Your task to perform on an android device: What's on the menu at Pizza Hut? Image 0: 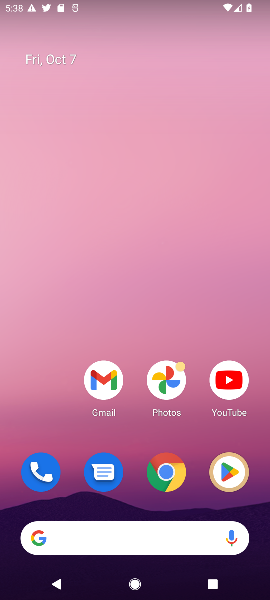
Step 0: click (170, 468)
Your task to perform on an android device: What's on the menu at Pizza Hut? Image 1: 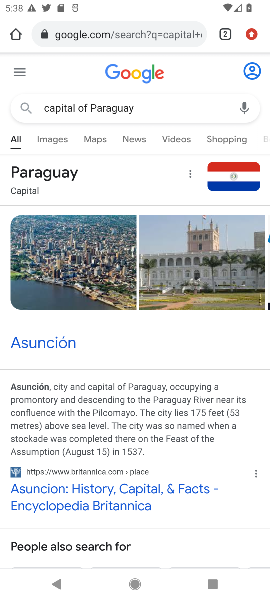
Step 1: click (133, 39)
Your task to perform on an android device: What's on the menu at Pizza Hut? Image 2: 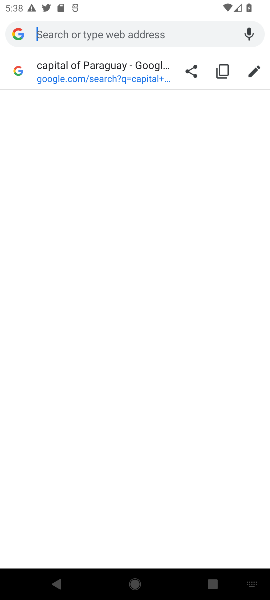
Step 2: type "pizza Hut"
Your task to perform on an android device: What's on the menu at Pizza Hut? Image 3: 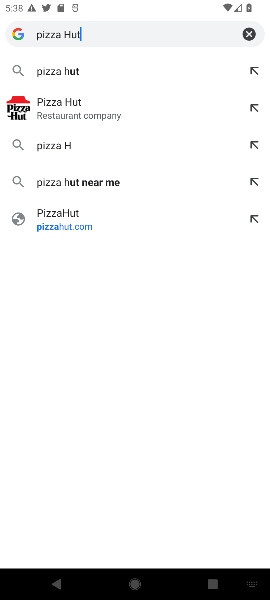
Step 3: type ""
Your task to perform on an android device: What's on the menu at Pizza Hut? Image 4: 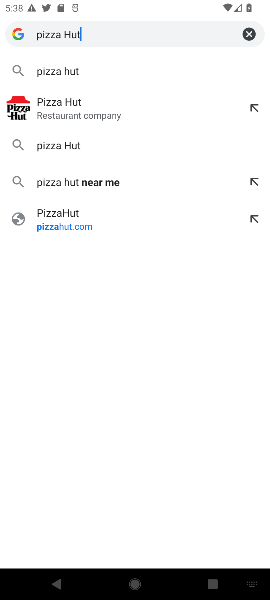
Step 4: click (83, 70)
Your task to perform on an android device: What's on the menu at Pizza Hut? Image 5: 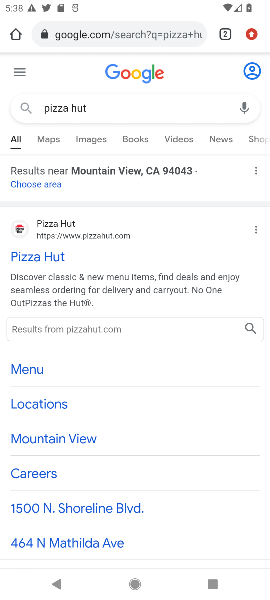
Step 5: click (37, 255)
Your task to perform on an android device: What's on the menu at Pizza Hut? Image 6: 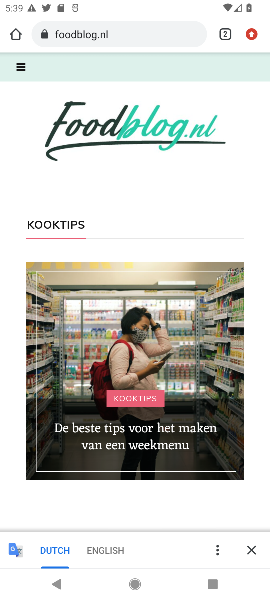
Step 6: press back button
Your task to perform on an android device: What's on the menu at Pizza Hut? Image 7: 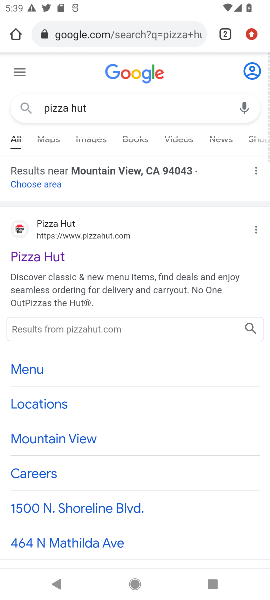
Step 7: click (33, 371)
Your task to perform on an android device: What's on the menu at Pizza Hut? Image 8: 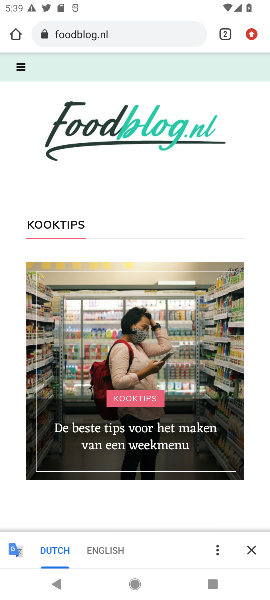
Step 8: drag from (149, 499) to (160, 206)
Your task to perform on an android device: What's on the menu at Pizza Hut? Image 9: 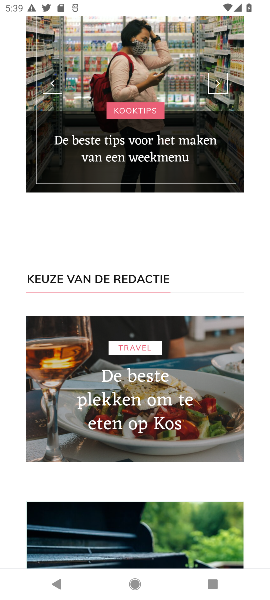
Step 9: press back button
Your task to perform on an android device: What's on the menu at Pizza Hut? Image 10: 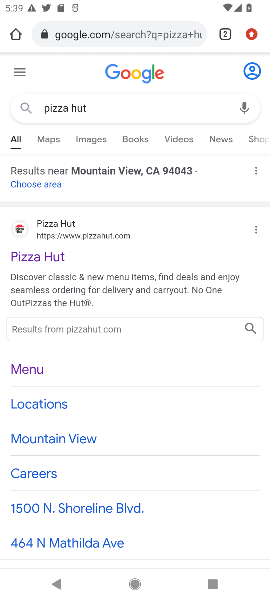
Step 10: drag from (153, 442) to (139, 34)
Your task to perform on an android device: What's on the menu at Pizza Hut? Image 11: 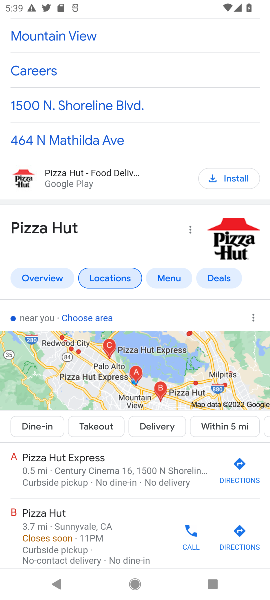
Step 11: drag from (140, 461) to (134, 313)
Your task to perform on an android device: What's on the menu at Pizza Hut? Image 12: 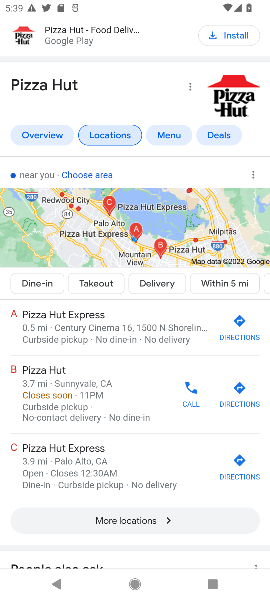
Step 12: drag from (122, 503) to (130, 348)
Your task to perform on an android device: What's on the menu at Pizza Hut? Image 13: 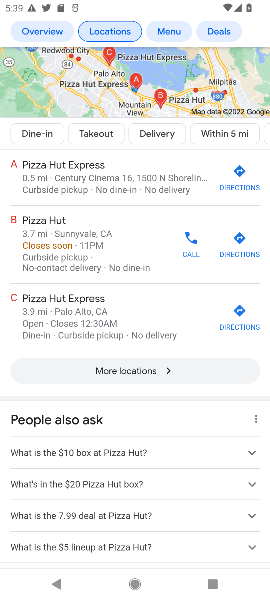
Step 13: drag from (154, 494) to (128, 303)
Your task to perform on an android device: What's on the menu at Pizza Hut? Image 14: 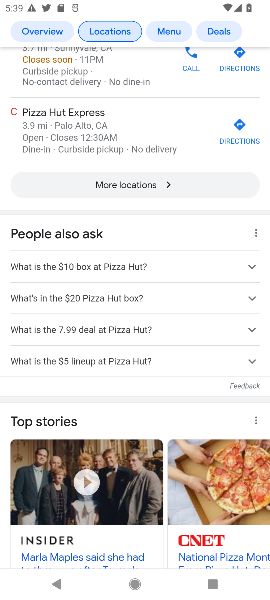
Step 14: drag from (121, 439) to (107, 223)
Your task to perform on an android device: What's on the menu at Pizza Hut? Image 15: 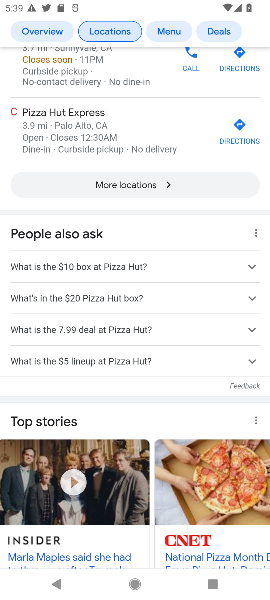
Step 15: click (124, 162)
Your task to perform on an android device: What's on the menu at Pizza Hut? Image 16: 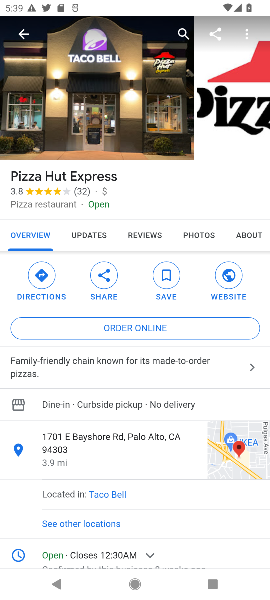
Step 16: drag from (237, 241) to (69, 237)
Your task to perform on an android device: What's on the menu at Pizza Hut? Image 17: 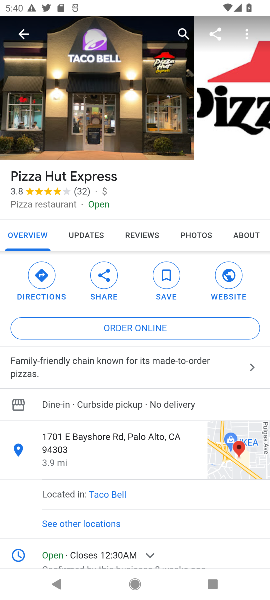
Step 17: click (23, 42)
Your task to perform on an android device: What's on the menu at Pizza Hut? Image 18: 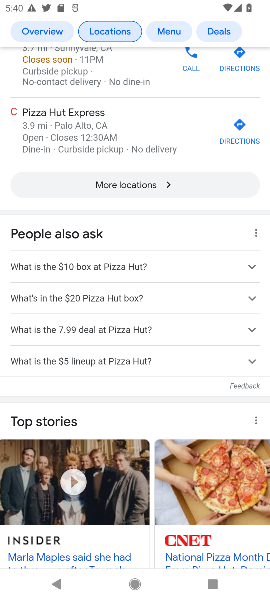
Step 18: drag from (156, 544) to (147, 337)
Your task to perform on an android device: What's on the menu at Pizza Hut? Image 19: 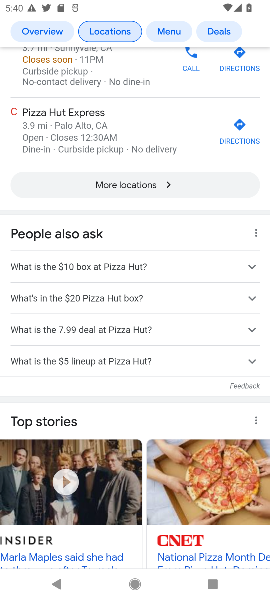
Step 19: drag from (149, 420) to (155, 29)
Your task to perform on an android device: What's on the menu at Pizza Hut? Image 20: 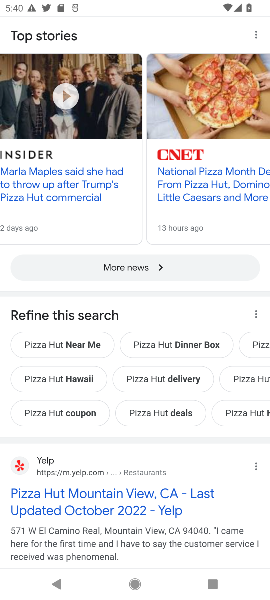
Step 20: drag from (160, 299) to (128, 598)
Your task to perform on an android device: What's on the menu at Pizza Hut? Image 21: 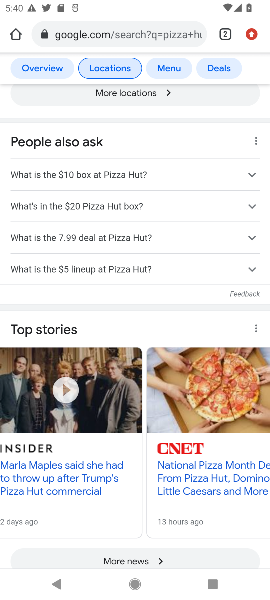
Step 21: drag from (195, 319) to (216, 503)
Your task to perform on an android device: What's on the menu at Pizza Hut? Image 22: 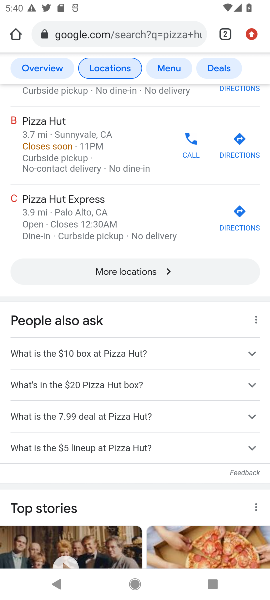
Step 22: click (171, 70)
Your task to perform on an android device: What's on the menu at Pizza Hut? Image 23: 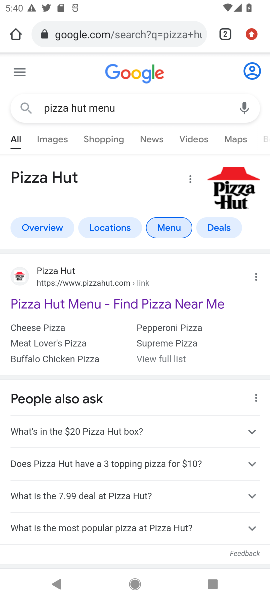
Step 23: click (113, 302)
Your task to perform on an android device: What's on the menu at Pizza Hut? Image 24: 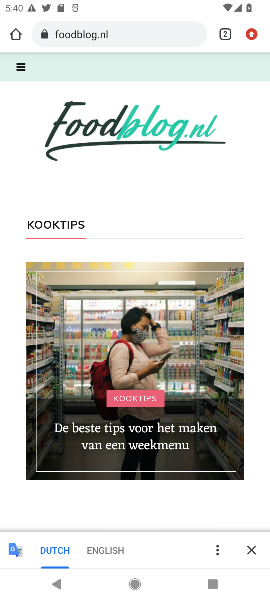
Step 24: task complete